Your task to perform on an android device: Open the stopwatch Image 0: 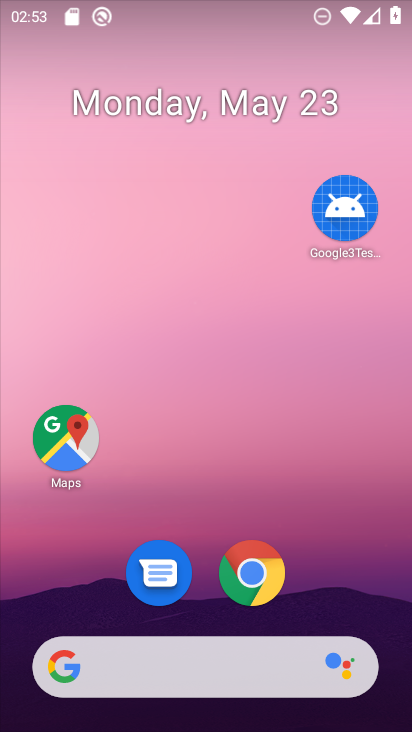
Step 0: drag from (351, 542) to (231, 51)
Your task to perform on an android device: Open the stopwatch Image 1: 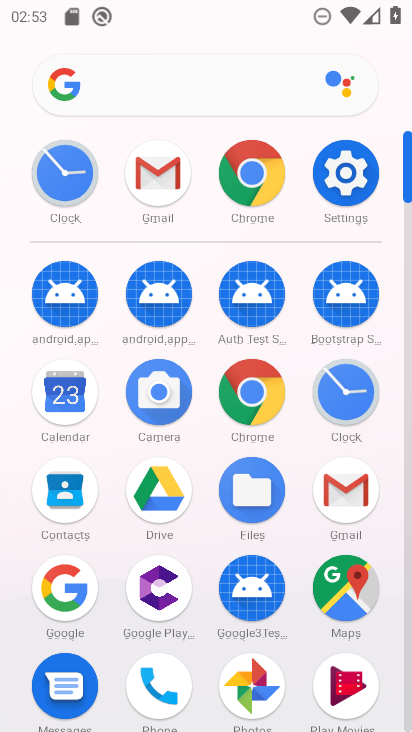
Step 1: click (340, 397)
Your task to perform on an android device: Open the stopwatch Image 2: 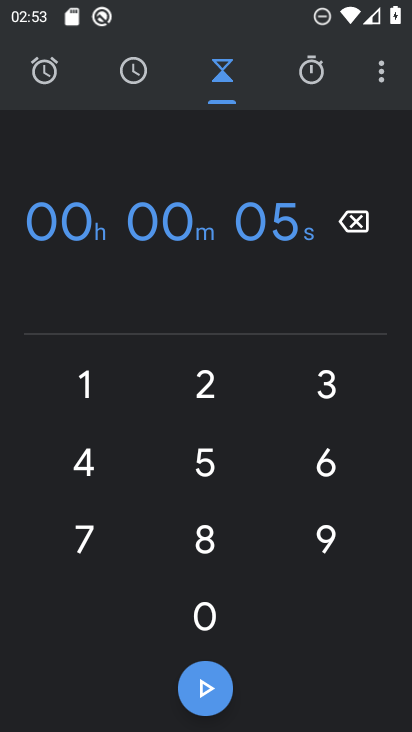
Step 2: click (294, 57)
Your task to perform on an android device: Open the stopwatch Image 3: 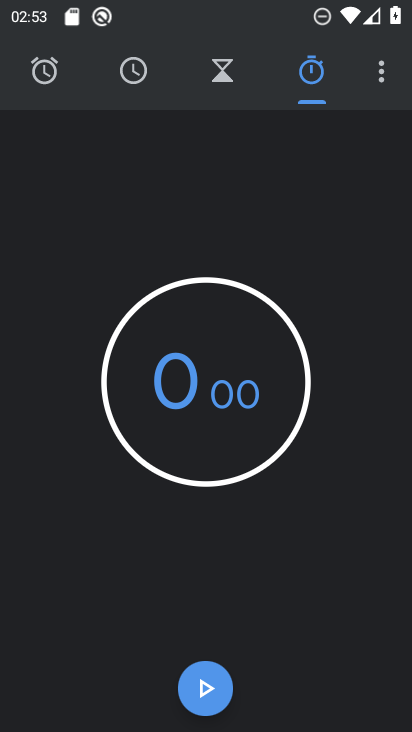
Step 3: task complete